Your task to perform on an android device: Is it going to rain this weekend? Image 0: 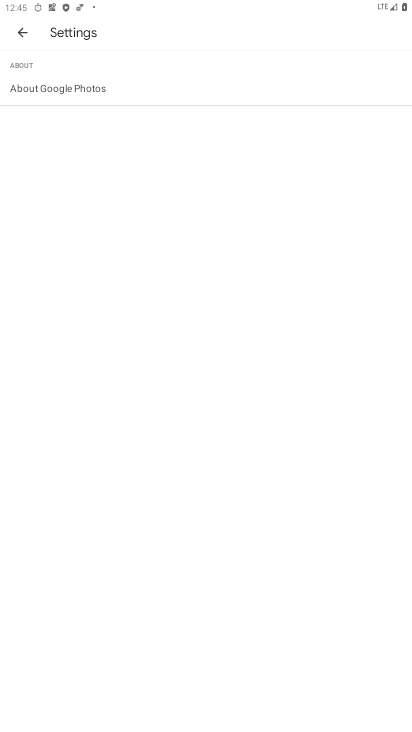
Step 0: press home button
Your task to perform on an android device: Is it going to rain this weekend? Image 1: 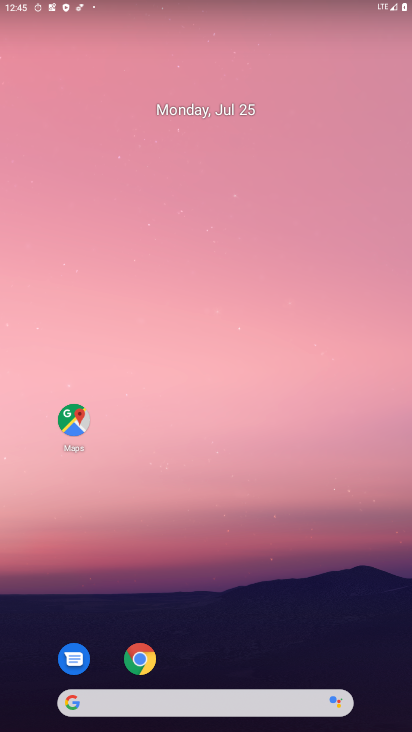
Step 1: click (95, 697)
Your task to perform on an android device: Is it going to rain this weekend? Image 2: 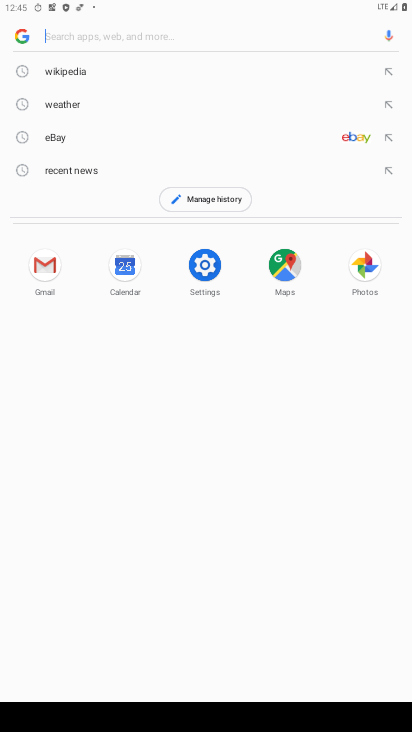
Step 2: type "Is it going to rain this weekend?"
Your task to perform on an android device: Is it going to rain this weekend? Image 3: 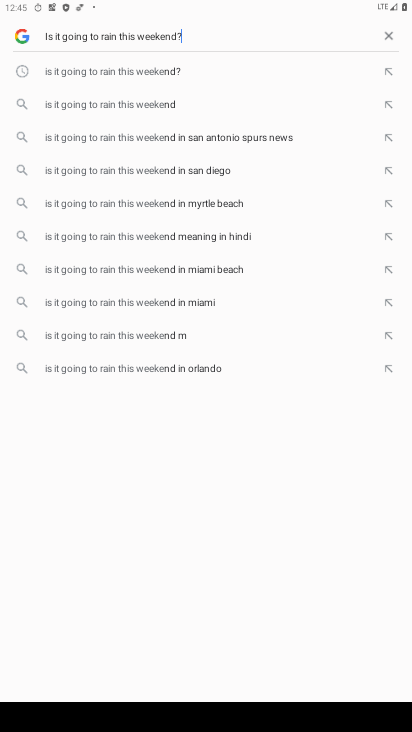
Step 3: type ""
Your task to perform on an android device: Is it going to rain this weekend? Image 4: 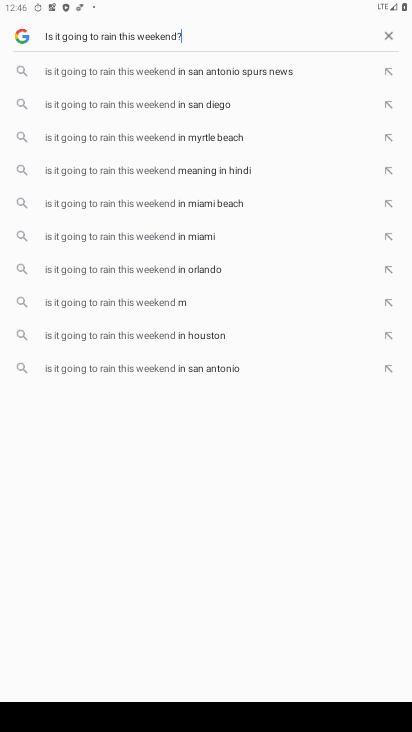
Step 4: type ""
Your task to perform on an android device: Is it going to rain this weekend? Image 5: 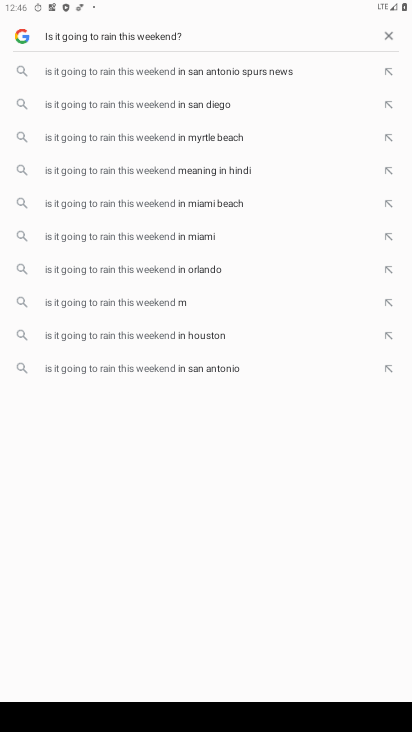
Step 5: type ""
Your task to perform on an android device: Is it going to rain this weekend? Image 6: 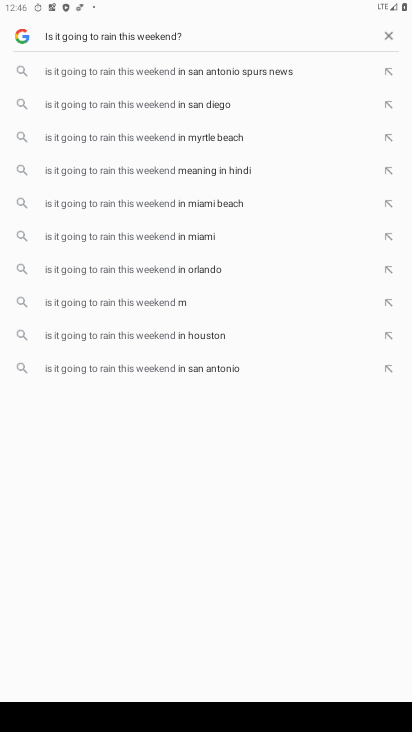
Step 6: type ""
Your task to perform on an android device: Is it going to rain this weekend? Image 7: 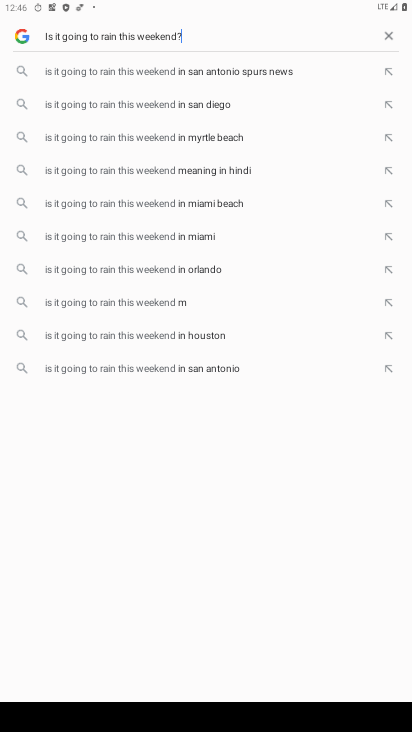
Step 7: task complete